Your task to perform on an android device: What's the weather today? Image 0: 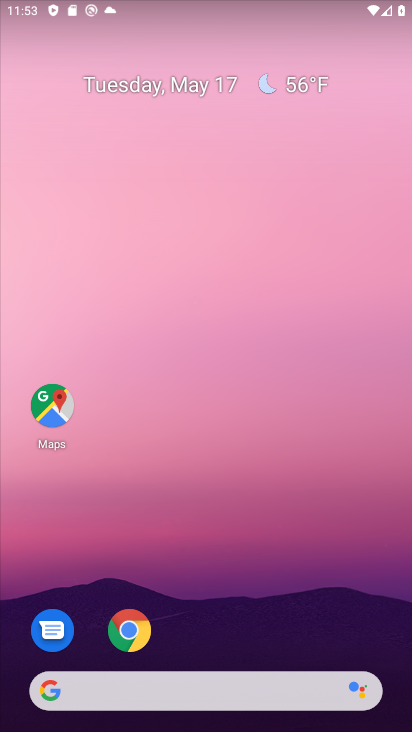
Step 0: click (268, 81)
Your task to perform on an android device: What's the weather today? Image 1: 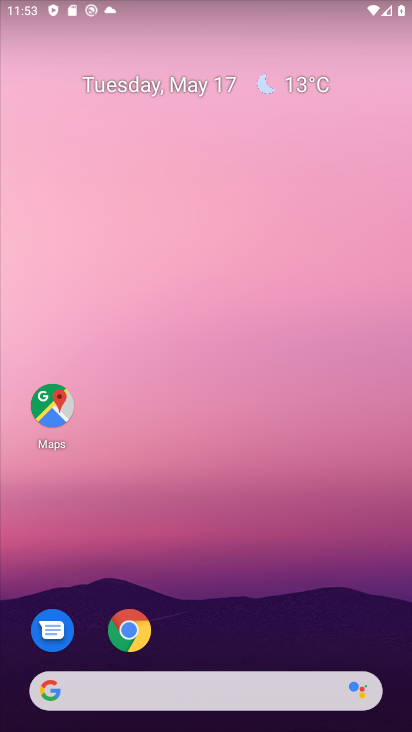
Step 1: click (265, 84)
Your task to perform on an android device: What's the weather today? Image 2: 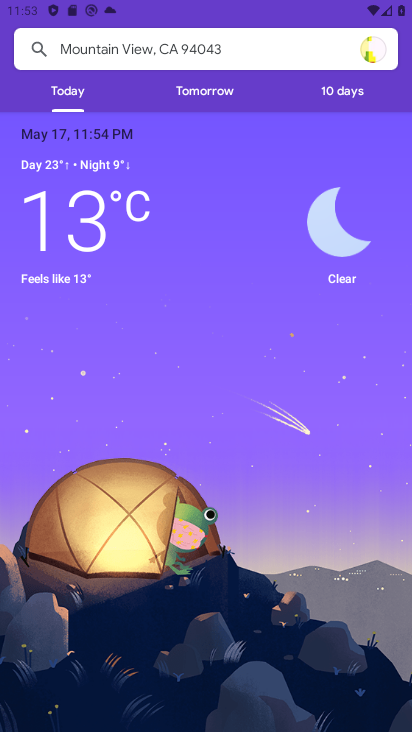
Step 2: task complete